Your task to perform on an android device: Open calendar and show me the first week of next month Image 0: 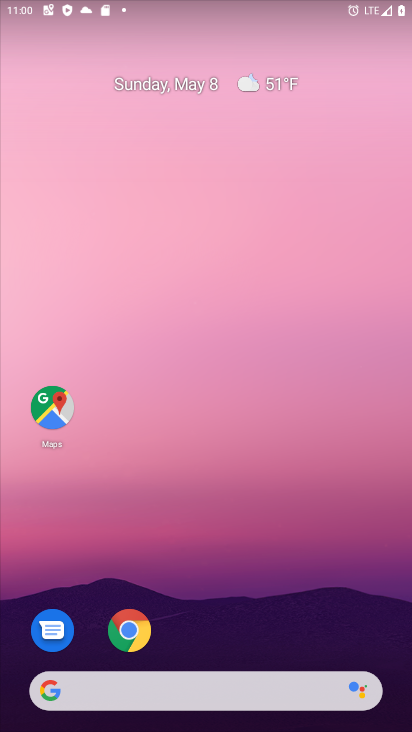
Step 0: drag from (361, 623) to (324, 55)
Your task to perform on an android device: Open calendar and show me the first week of next month Image 1: 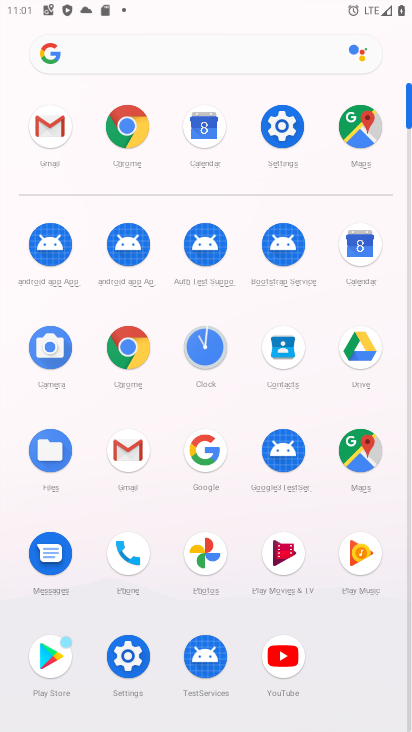
Step 1: click (365, 269)
Your task to perform on an android device: Open calendar and show me the first week of next month Image 2: 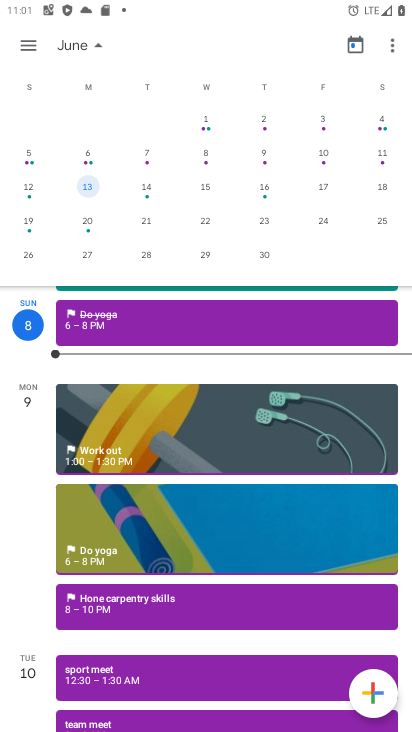
Step 2: drag from (360, 221) to (37, 149)
Your task to perform on an android device: Open calendar and show me the first week of next month Image 3: 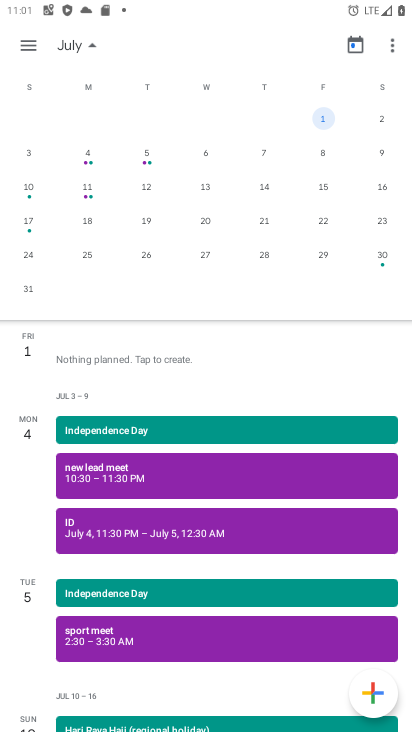
Step 3: click (96, 152)
Your task to perform on an android device: Open calendar and show me the first week of next month Image 4: 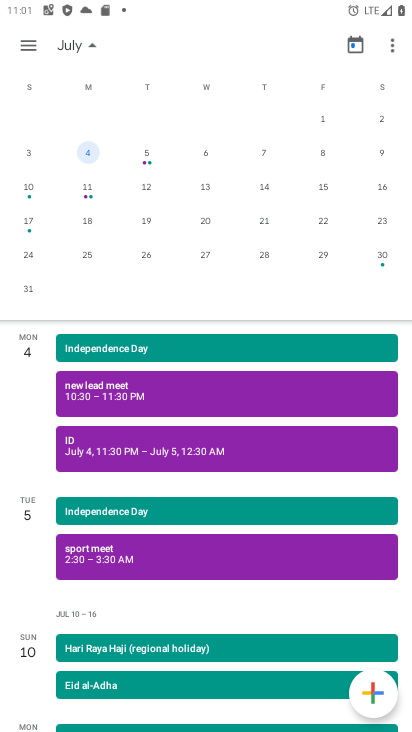
Step 4: task complete